Your task to perform on an android device: Open ESPN.com Image 0: 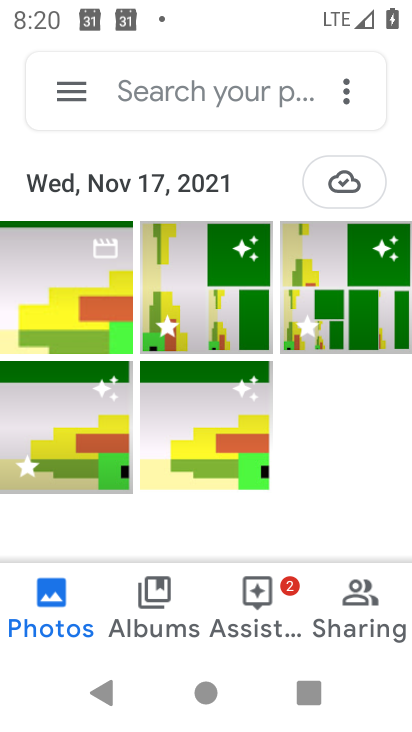
Step 0: press home button
Your task to perform on an android device: Open ESPN.com Image 1: 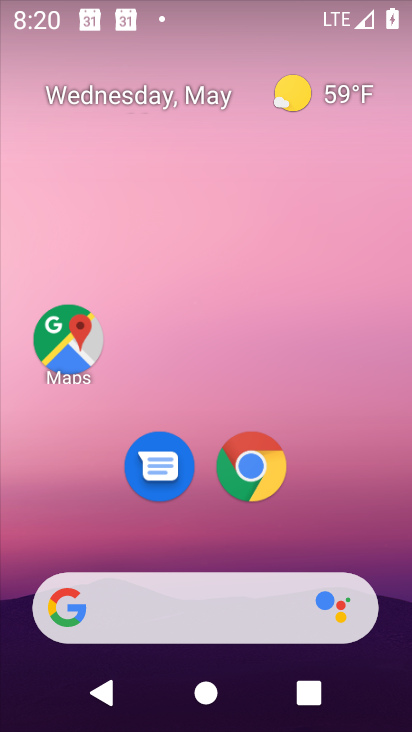
Step 1: click (266, 456)
Your task to perform on an android device: Open ESPN.com Image 2: 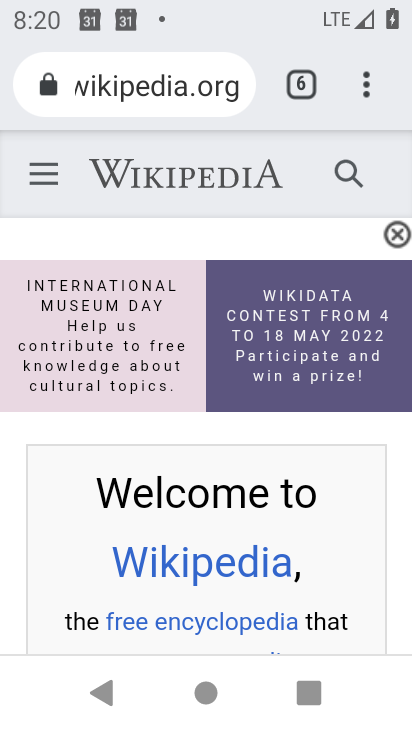
Step 2: click (358, 82)
Your task to perform on an android device: Open ESPN.com Image 3: 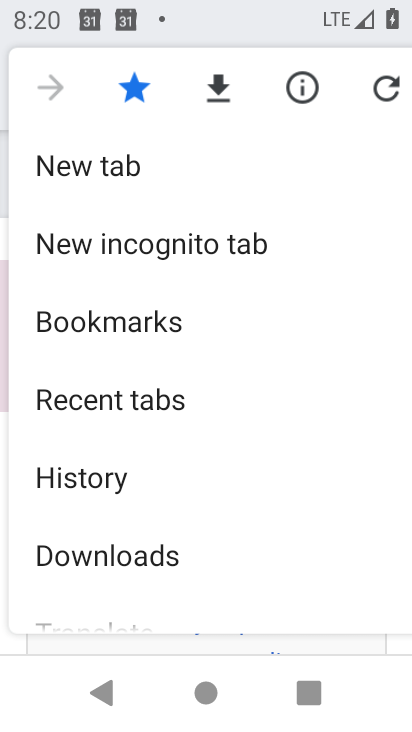
Step 3: click (115, 165)
Your task to perform on an android device: Open ESPN.com Image 4: 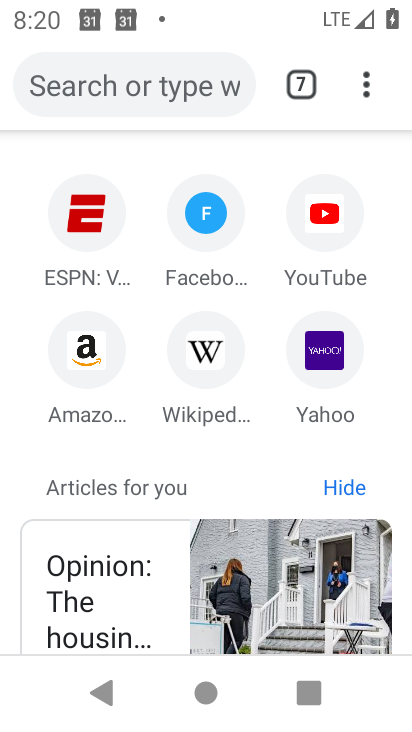
Step 4: click (95, 204)
Your task to perform on an android device: Open ESPN.com Image 5: 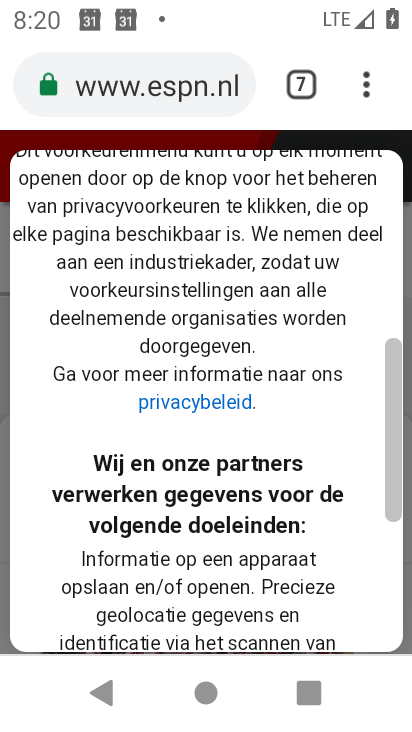
Step 5: task complete